Your task to perform on an android device: see sites visited before in the chrome app Image 0: 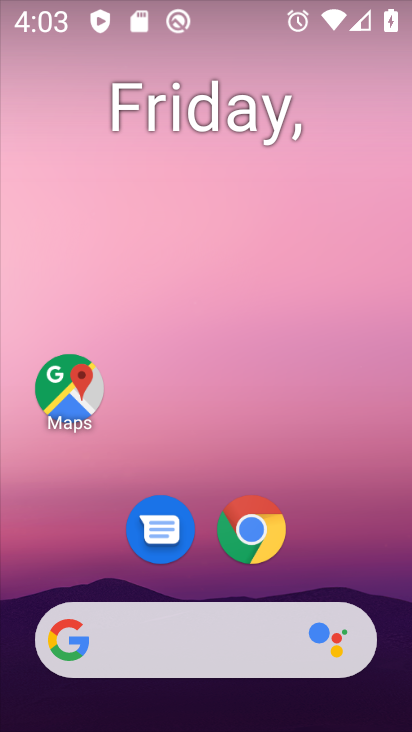
Step 0: click (253, 544)
Your task to perform on an android device: see sites visited before in the chrome app Image 1: 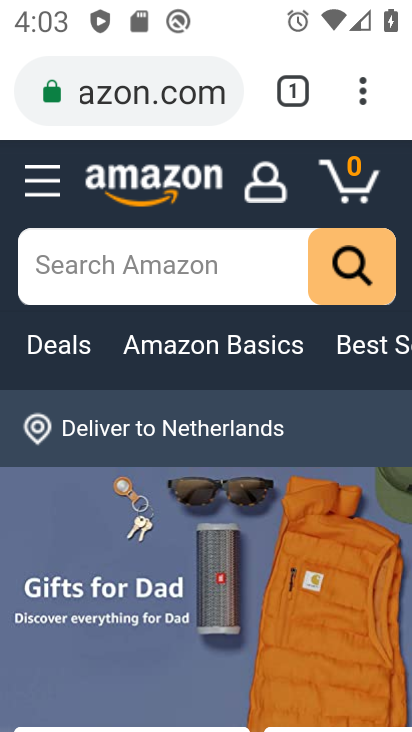
Step 1: task complete